Your task to perform on an android device: empty trash in the gmail app Image 0: 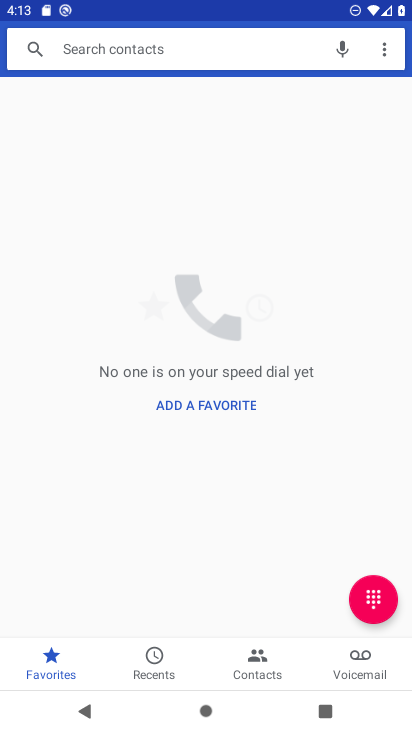
Step 0: press home button
Your task to perform on an android device: empty trash in the gmail app Image 1: 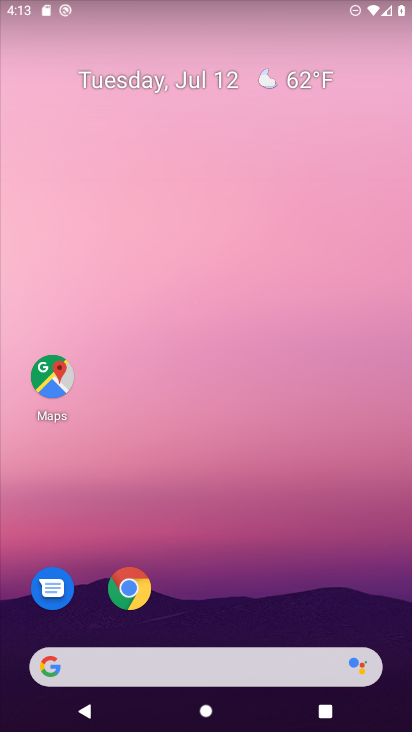
Step 1: drag from (212, 591) to (314, 11)
Your task to perform on an android device: empty trash in the gmail app Image 2: 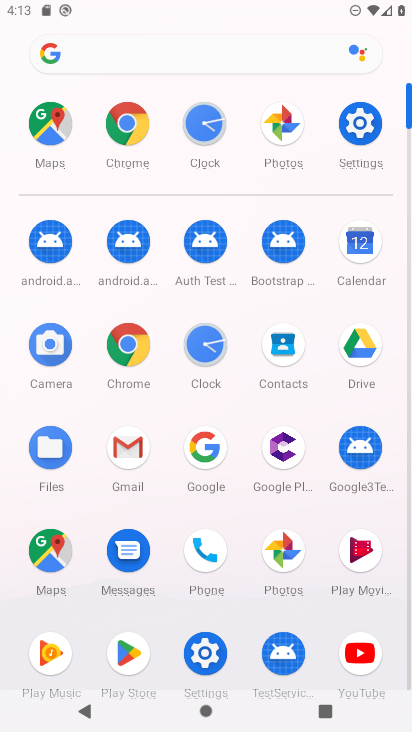
Step 2: click (131, 459)
Your task to perform on an android device: empty trash in the gmail app Image 3: 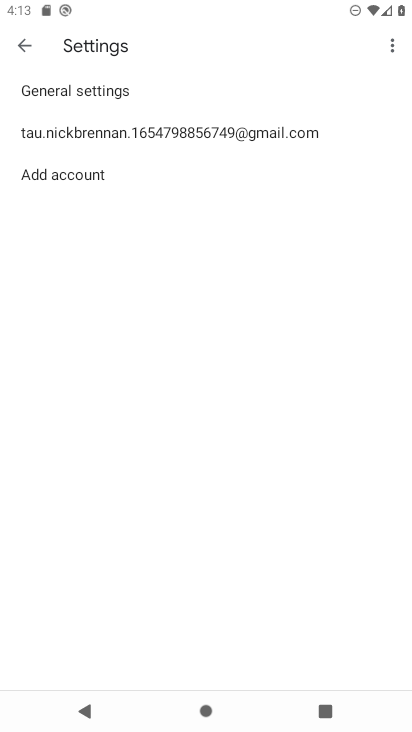
Step 3: click (22, 47)
Your task to perform on an android device: empty trash in the gmail app Image 4: 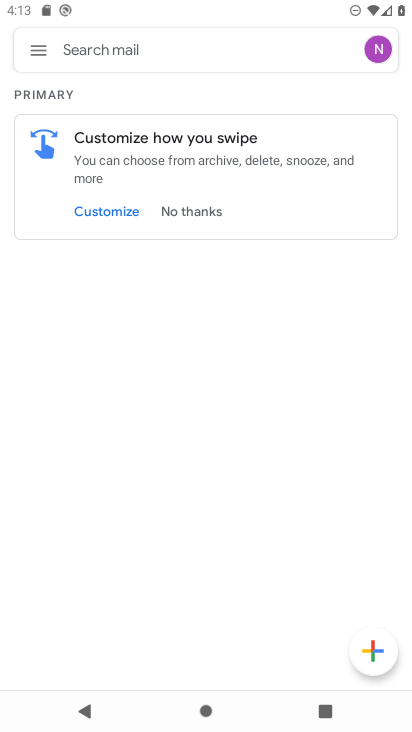
Step 4: click (31, 54)
Your task to perform on an android device: empty trash in the gmail app Image 5: 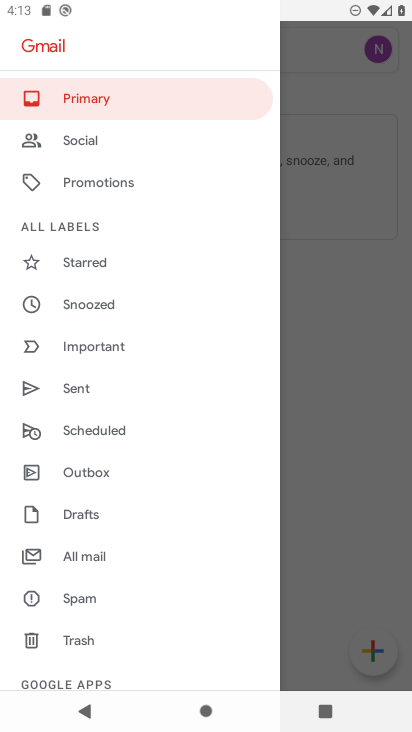
Step 5: click (87, 638)
Your task to perform on an android device: empty trash in the gmail app Image 6: 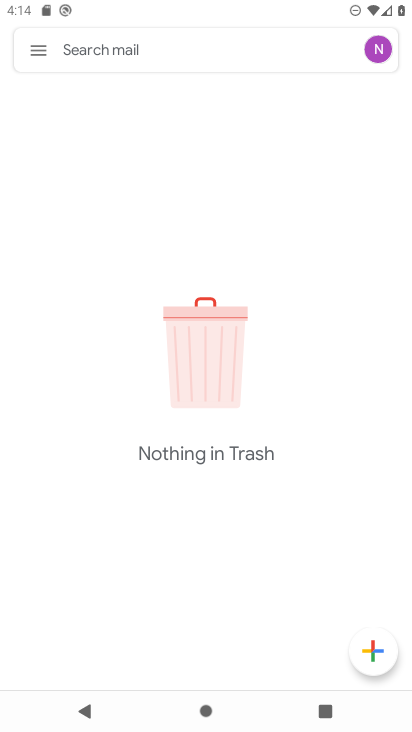
Step 6: task complete